Your task to perform on an android device: set the stopwatch Image 0: 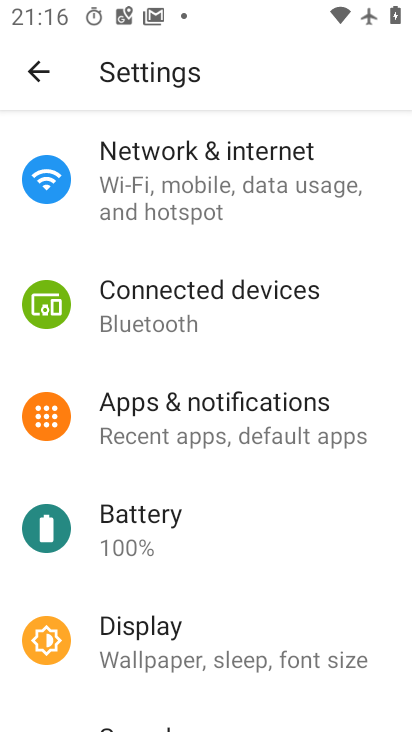
Step 0: press home button
Your task to perform on an android device: set the stopwatch Image 1: 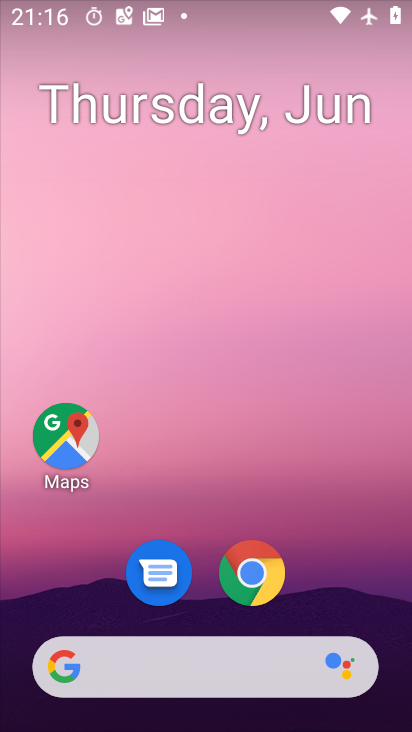
Step 1: drag from (265, 592) to (286, 311)
Your task to perform on an android device: set the stopwatch Image 2: 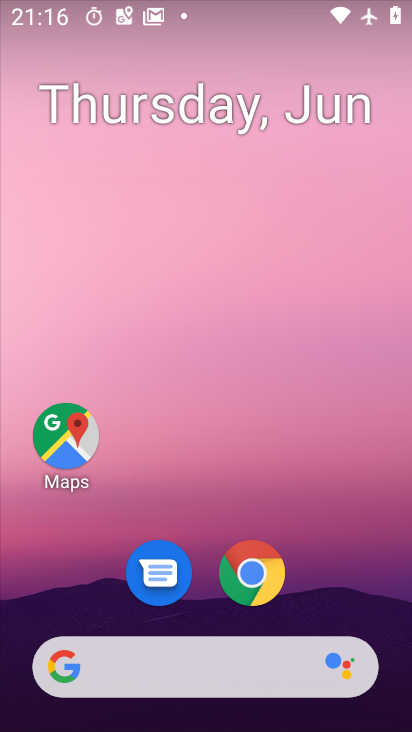
Step 2: drag from (205, 627) to (232, 308)
Your task to perform on an android device: set the stopwatch Image 3: 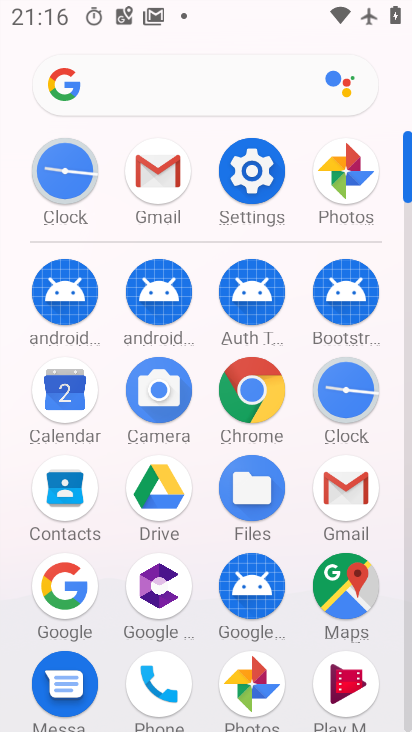
Step 3: click (344, 374)
Your task to perform on an android device: set the stopwatch Image 4: 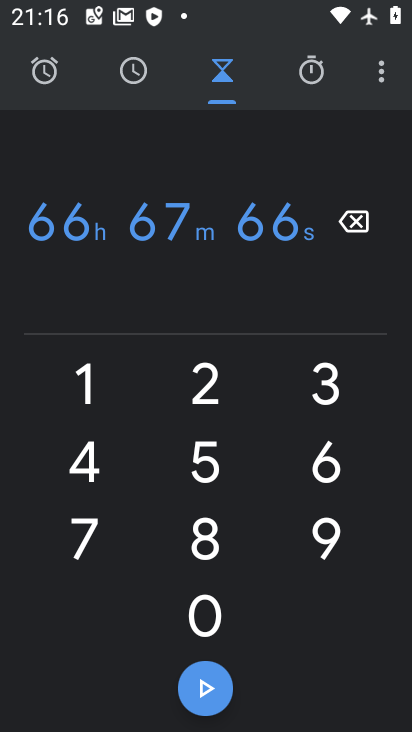
Step 4: click (309, 72)
Your task to perform on an android device: set the stopwatch Image 5: 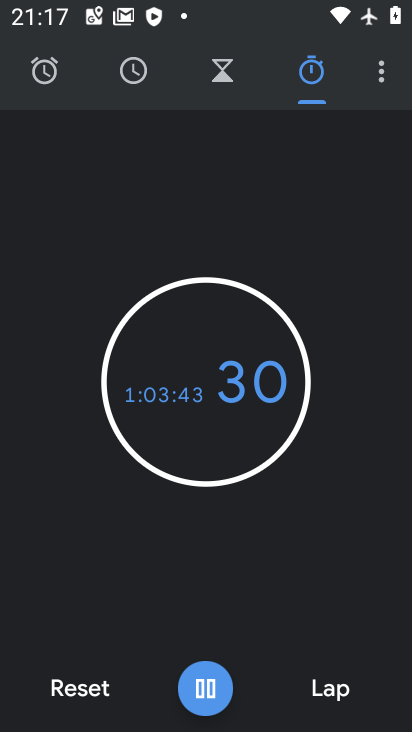
Step 5: click (43, 682)
Your task to perform on an android device: set the stopwatch Image 6: 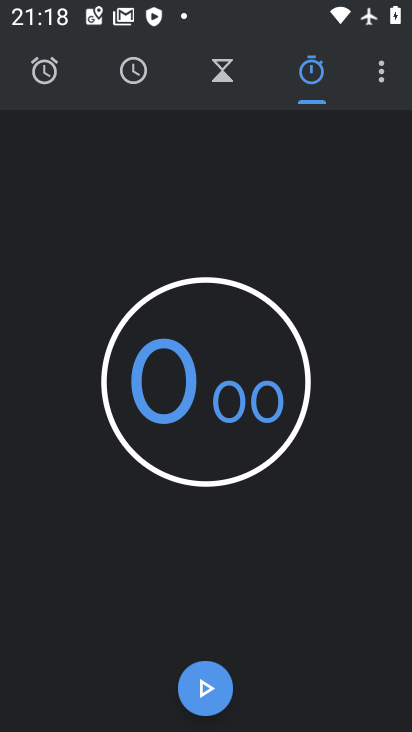
Step 6: task complete